Your task to perform on an android device: allow cookies in the chrome app Image 0: 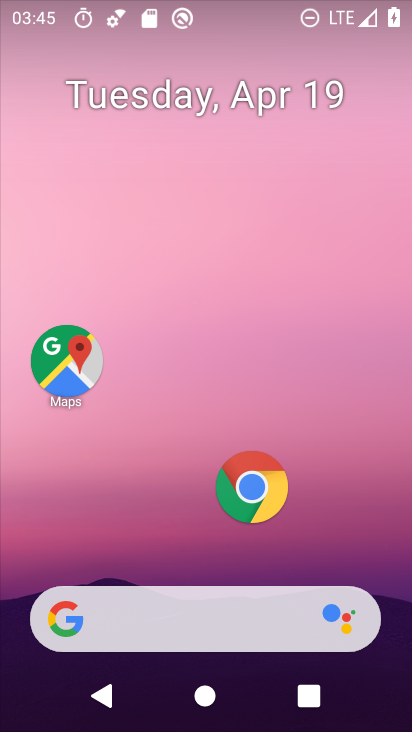
Step 0: drag from (154, 525) to (275, 9)
Your task to perform on an android device: allow cookies in the chrome app Image 1: 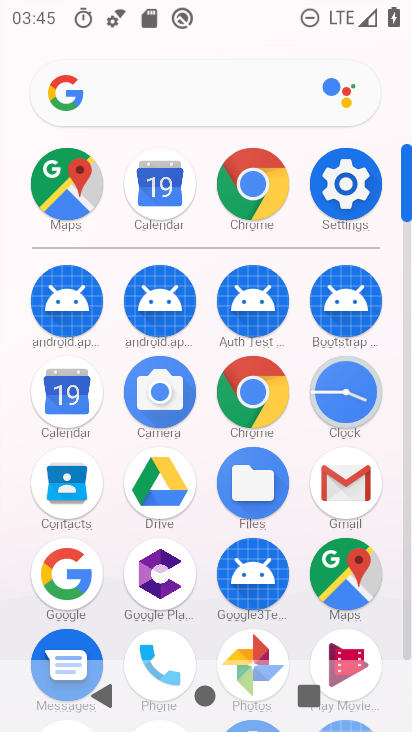
Step 1: click (264, 198)
Your task to perform on an android device: allow cookies in the chrome app Image 2: 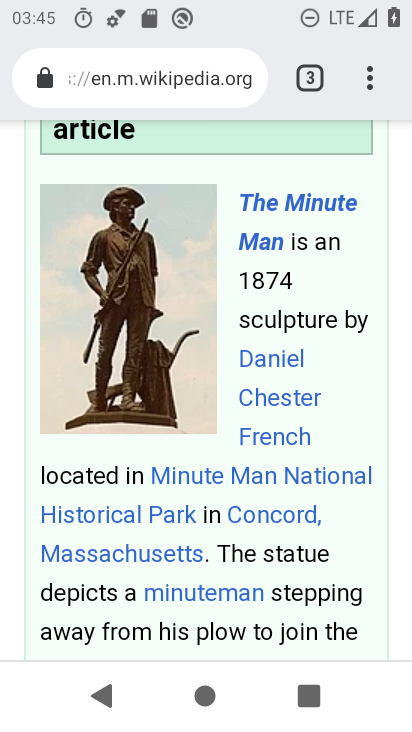
Step 2: drag from (372, 74) to (133, 543)
Your task to perform on an android device: allow cookies in the chrome app Image 3: 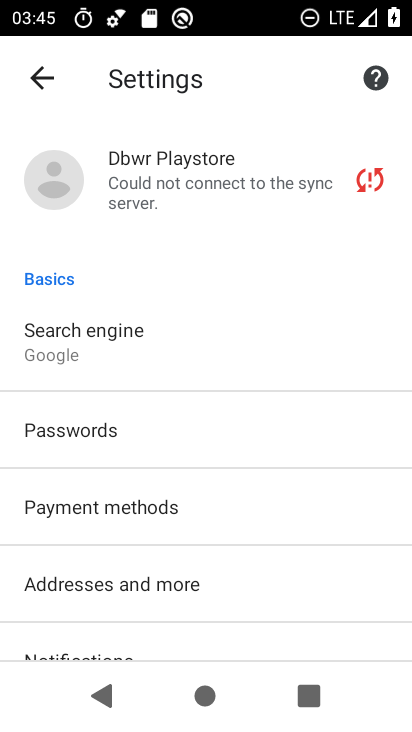
Step 3: drag from (155, 579) to (222, 299)
Your task to perform on an android device: allow cookies in the chrome app Image 4: 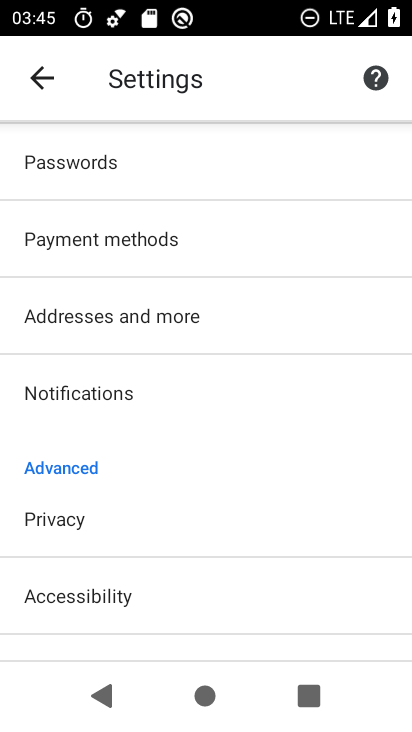
Step 4: drag from (122, 567) to (202, 275)
Your task to perform on an android device: allow cookies in the chrome app Image 5: 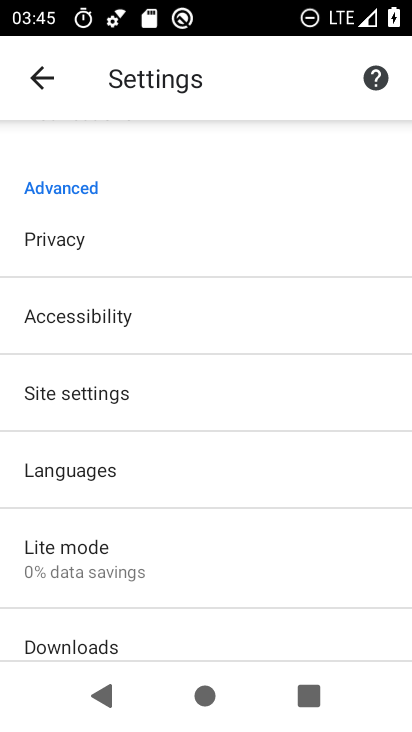
Step 5: click (93, 392)
Your task to perform on an android device: allow cookies in the chrome app Image 6: 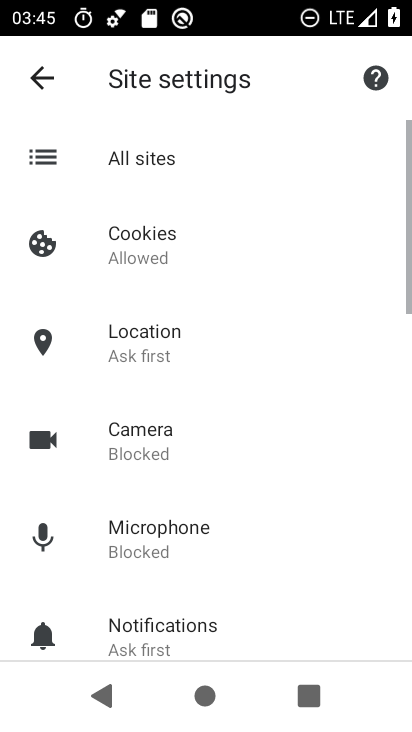
Step 6: click (182, 241)
Your task to perform on an android device: allow cookies in the chrome app Image 7: 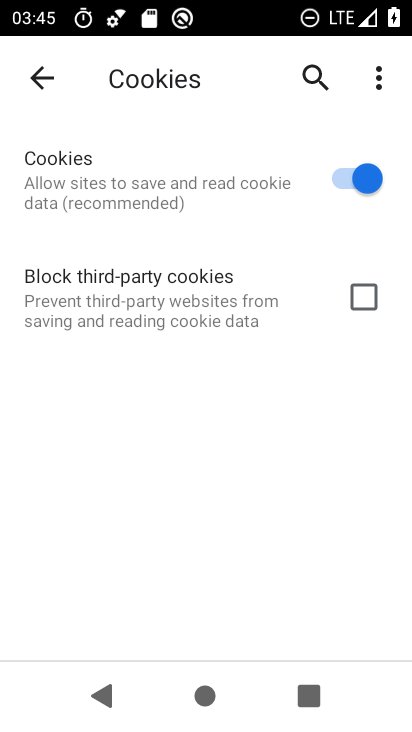
Step 7: task complete